Your task to perform on an android device: Set the phone to "Do not disturb". Image 0: 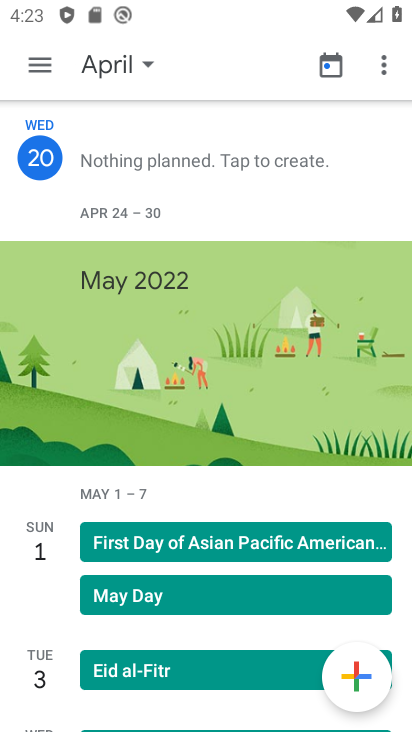
Step 0: press home button
Your task to perform on an android device: Set the phone to "Do not disturb". Image 1: 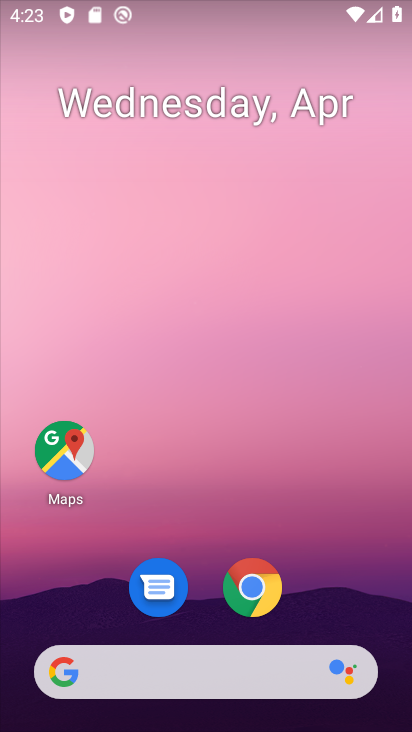
Step 1: drag from (211, 623) to (211, 155)
Your task to perform on an android device: Set the phone to "Do not disturb". Image 2: 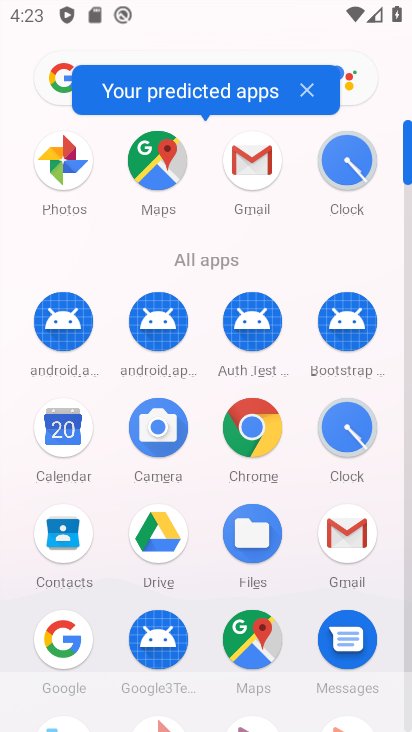
Step 2: drag from (189, 504) to (181, 160)
Your task to perform on an android device: Set the phone to "Do not disturb". Image 3: 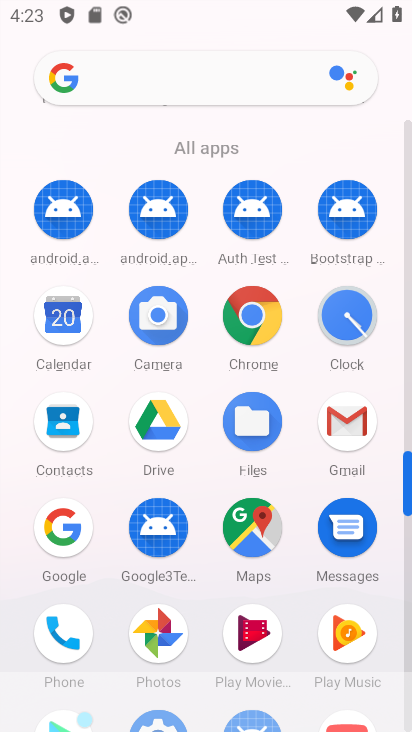
Step 3: drag from (195, 555) to (200, 298)
Your task to perform on an android device: Set the phone to "Do not disturb". Image 4: 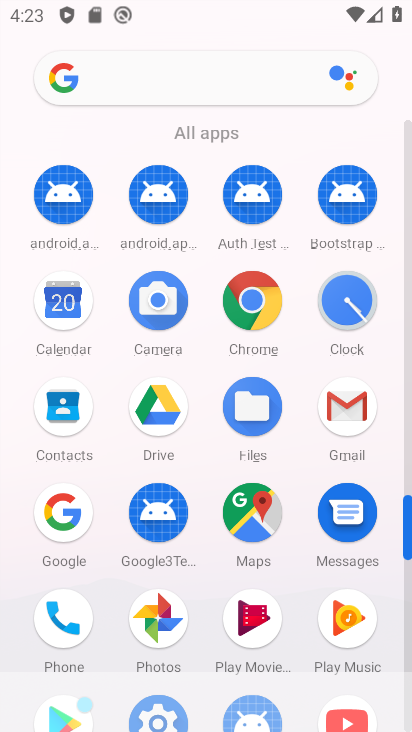
Step 4: drag from (196, 553) to (198, 271)
Your task to perform on an android device: Set the phone to "Do not disturb". Image 5: 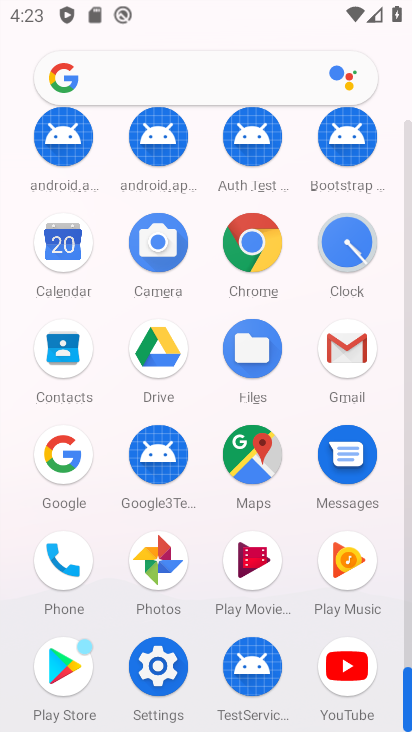
Step 5: click (147, 651)
Your task to perform on an android device: Set the phone to "Do not disturb". Image 6: 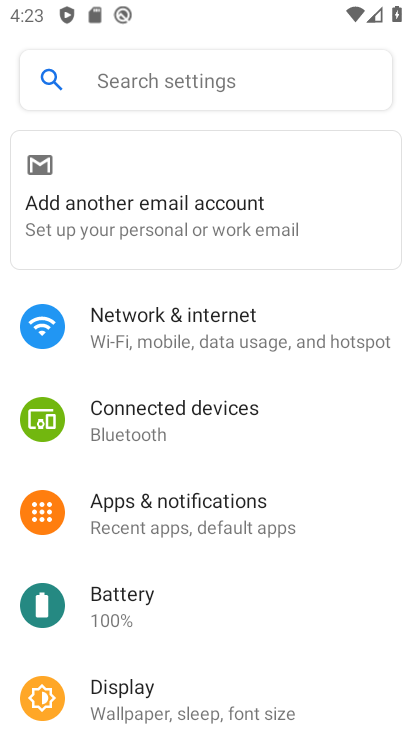
Step 6: drag from (189, 636) to (201, 274)
Your task to perform on an android device: Set the phone to "Do not disturb". Image 7: 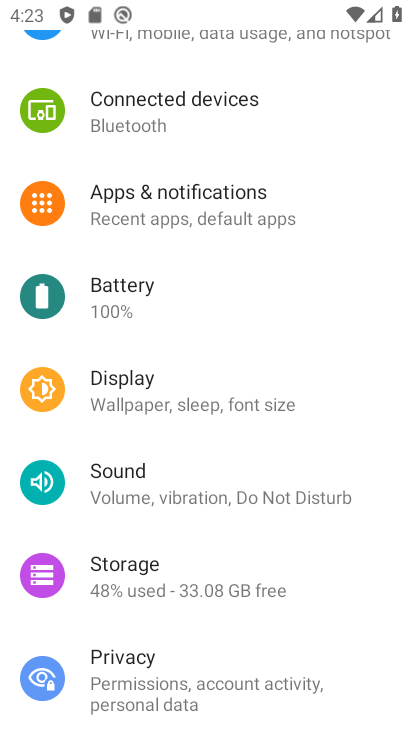
Step 7: click (139, 481)
Your task to perform on an android device: Set the phone to "Do not disturb". Image 8: 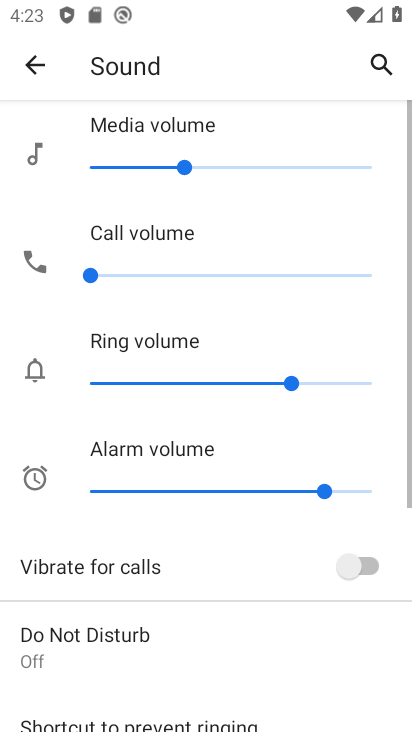
Step 8: drag from (178, 643) to (212, 355)
Your task to perform on an android device: Set the phone to "Do not disturb". Image 9: 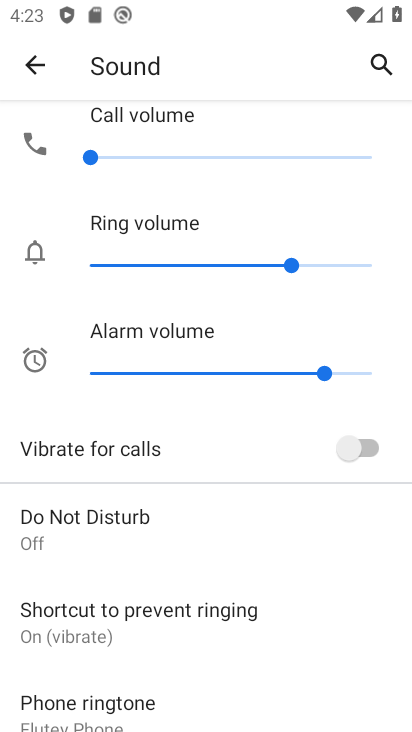
Step 9: click (104, 531)
Your task to perform on an android device: Set the phone to "Do not disturb". Image 10: 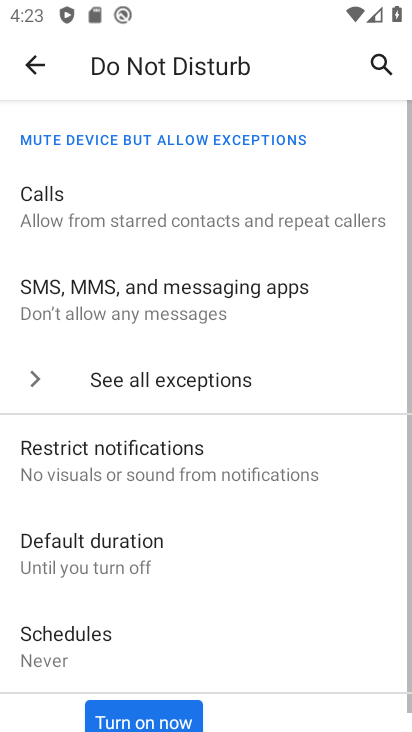
Step 10: drag from (167, 623) to (196, 441)
Your task to perform on an android device: Set the phone to "Do not disturb". Image 11: 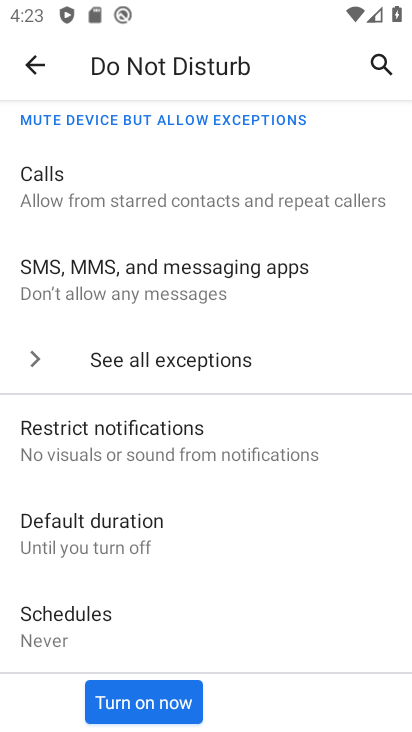
Step 11: click (153, 686)
Your task to perform on an android device: Set the phone to "Do not disturb". Image 12: 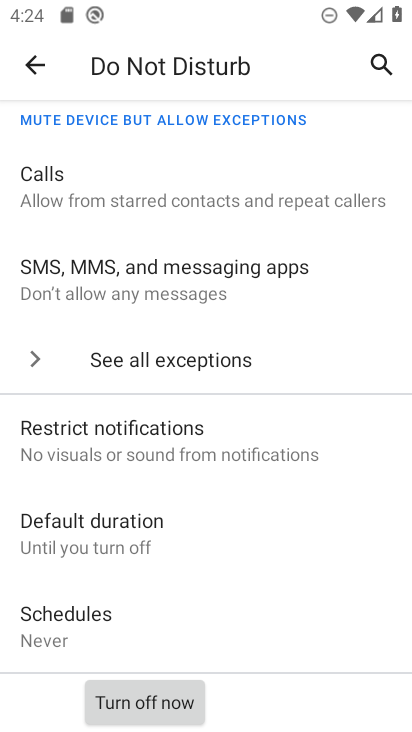
Step 12: task complete